Your task to perform on an android device: turn off airplane mode Image 0: 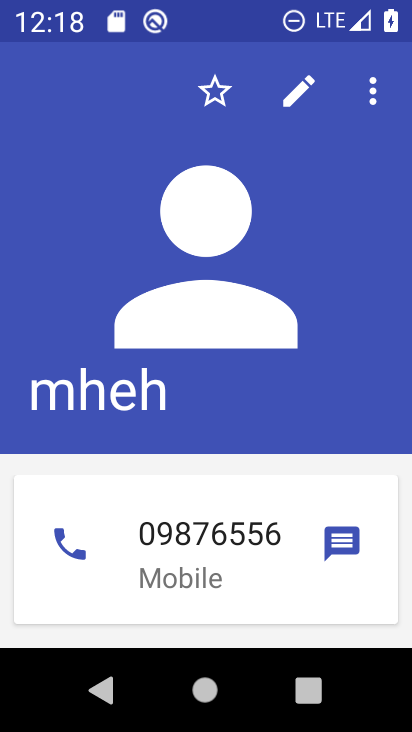
Step 0: press home button
Your task to perform on an android device: turn off airplane mode Image 1: 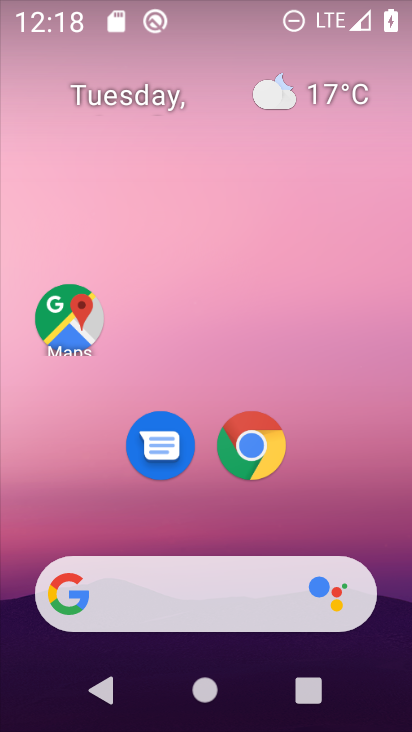
Step 1: drag from (376, 644) to (359, 265)
Your task to perform on an android device: turn off airplane mode Image 2: 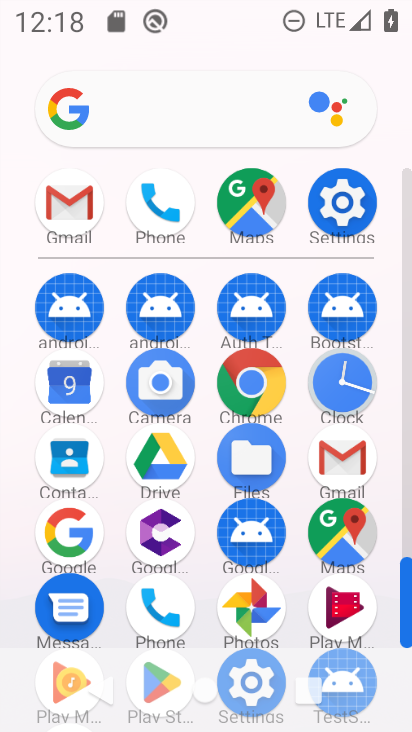
Step 2: click (407, 540)
Your task to perform on an android device: turn off airplane mode Image 3: 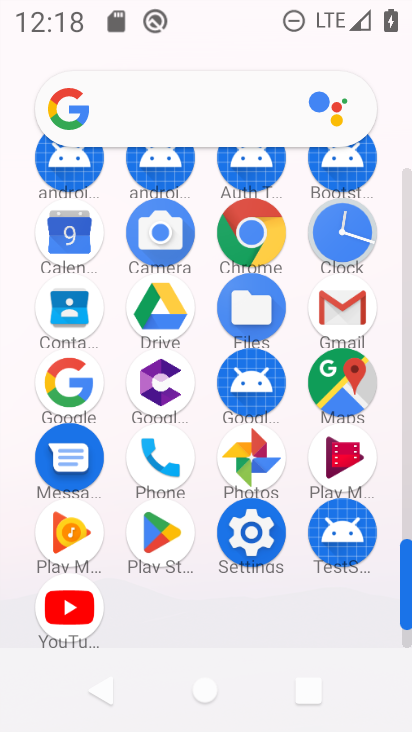
Step 3: click (252, 535)
Your task to perform on an android device: turn off airplane mode Image 4: 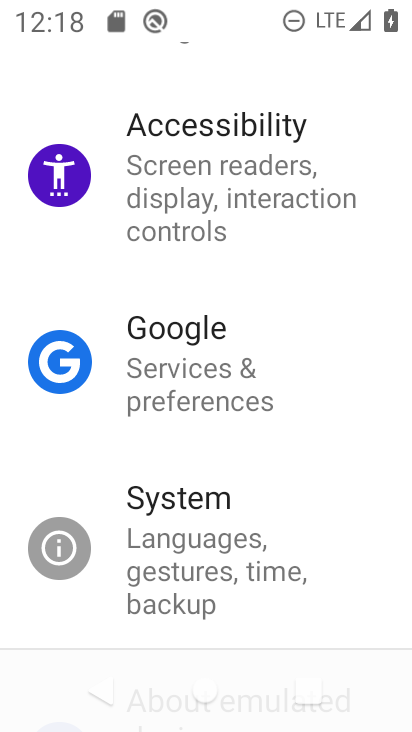
Step 4: drag from (311, 257) to (317, 524)
Your task to perform on an android device: turn off airplane mode Image 5: 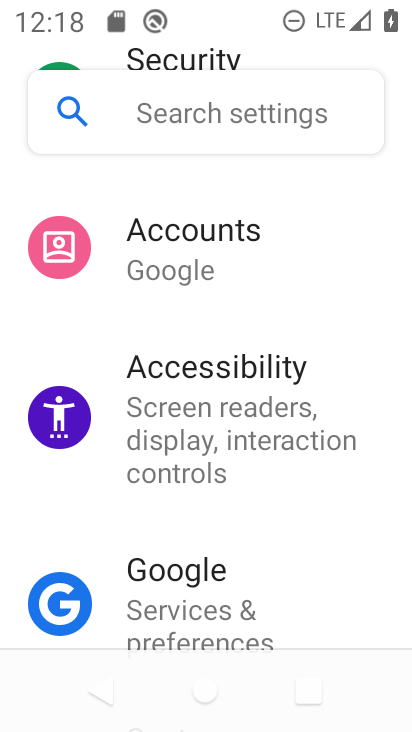
Step 5: drag from (311, 188) to (319, 506)
Your task to perform on an android device: turn off airplane mode Image 6: 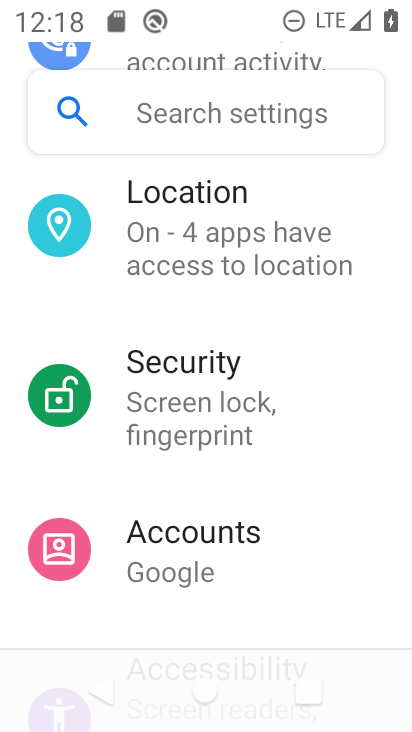
Step 6: drag from (348, 226) to (376, 626)
Your task to perform on an android device: turn off airplane mode Image 7: 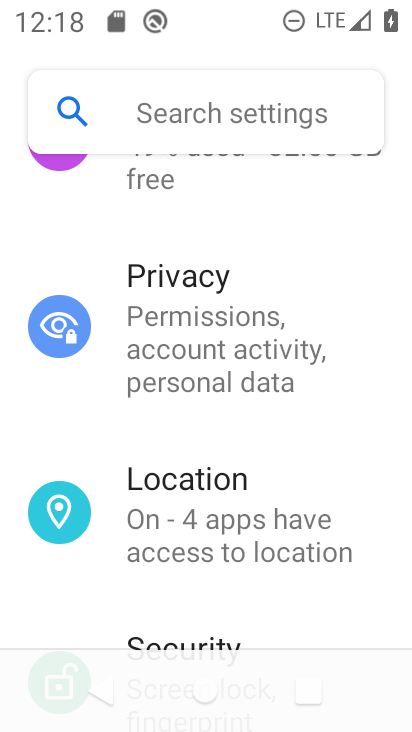
Step 7: drag from (299, 208) to (340, 550)
Your task to perform on an android device: turn off airplane mode Image 8: 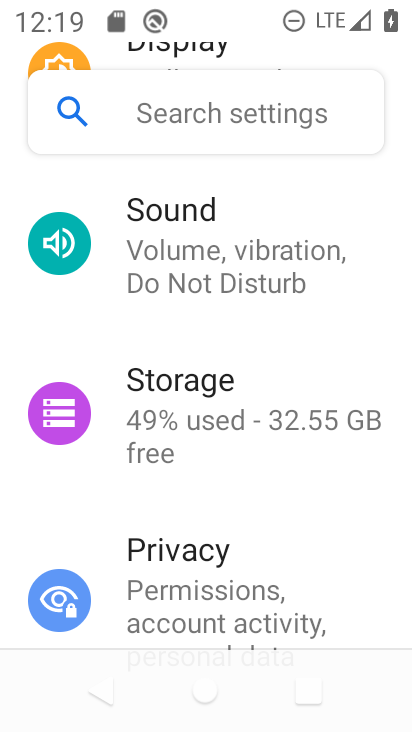
Step 8: drag from (319, 190) to (377, 645)
Your task to perform on an android device: turn off airplane mode Image 9: 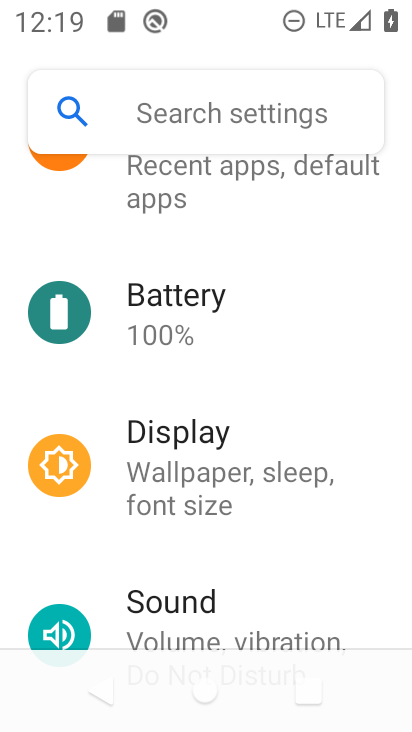
Step 9: drag from (318, 206) to (370, 667)
Your task to perform on an android device: turn off airplane mode Image 10: 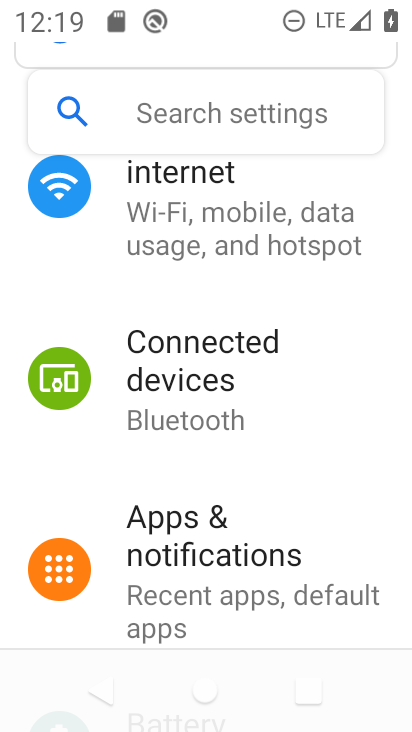
Step 10: click (171, 187)
Your task to perform on an android device: turn off airplane mode Image 11: 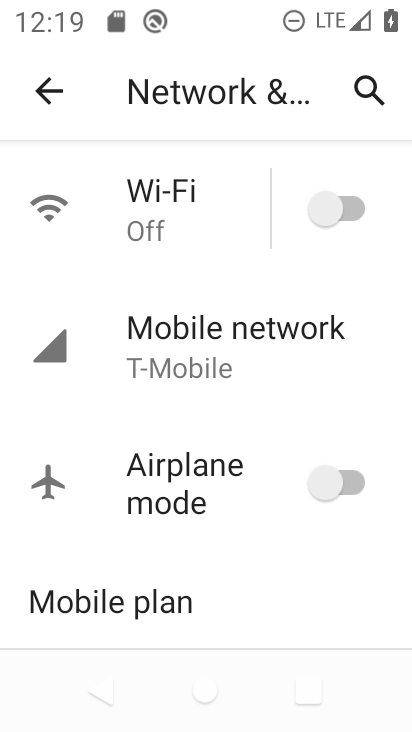
Step 11: task complete